Your task to perform on an android device: Open eBay Image 0: 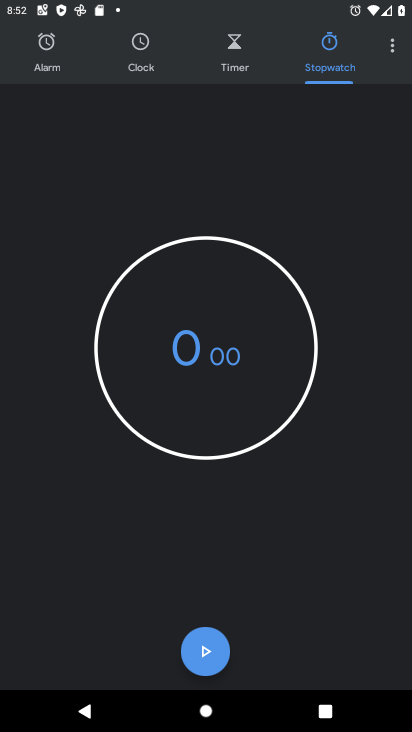
Step 0: press home button
Your task to perform on an android device: Open eBay Image 1: 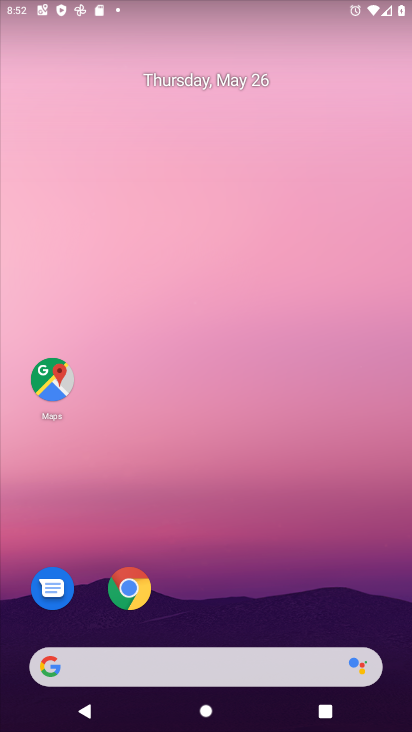
Step 1: drag from (391, 585) to (290, 17)
Your task to perform on an android device: Open eBay Image 2: 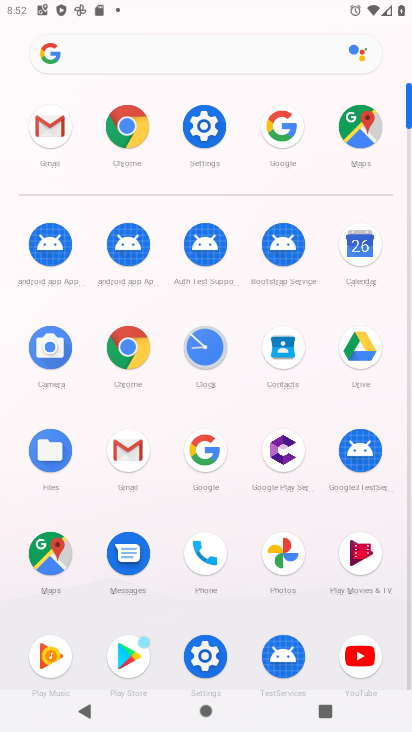
Step 2: click (126, 462)
Your task to perform on an android device: Open eBay Image 3: 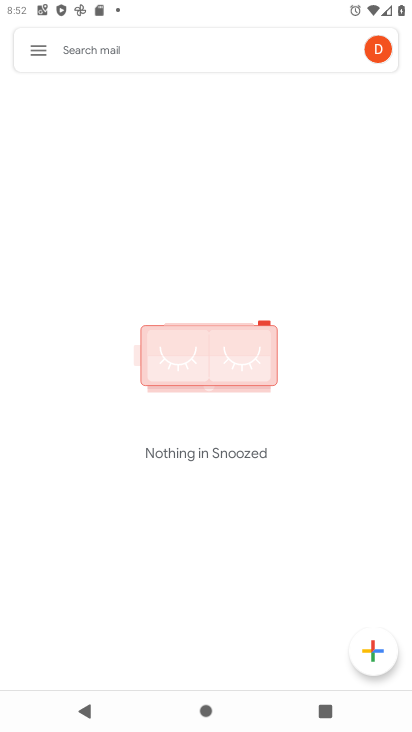
Step 3: press home button
Your task to perform on an android device: Open eBay Image 4: 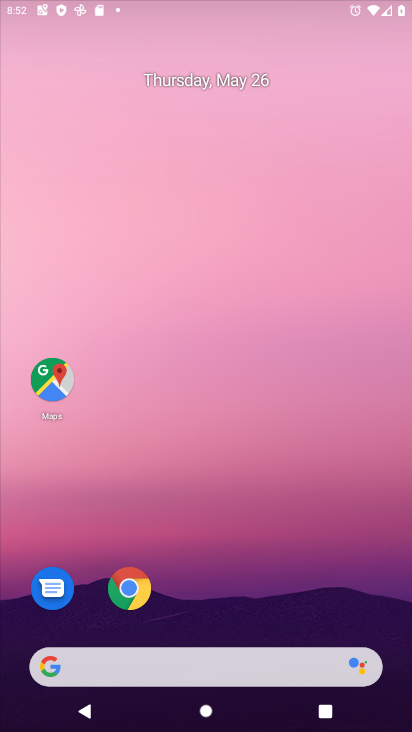
Step 4: drag from (399, 624) to (264, 13)
Your task to perform on an android device: Open eBay Image 5: 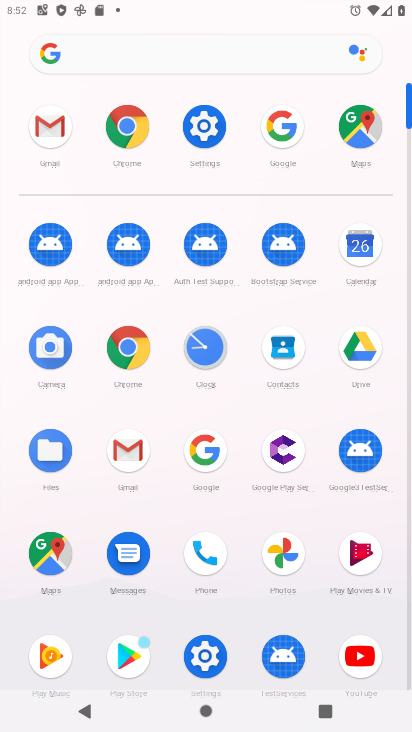
Step 5: click (198, 437)
Your task to perform on an android device: Open eBay Image 6: 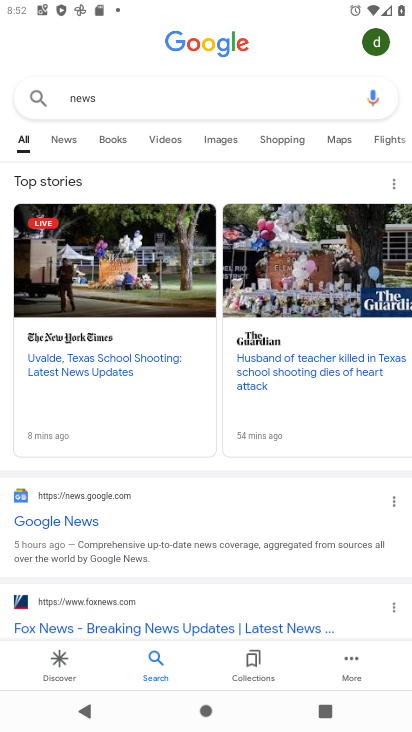
Step 6: press back button
Your task to perform on an android device: Open eBay Image 7: 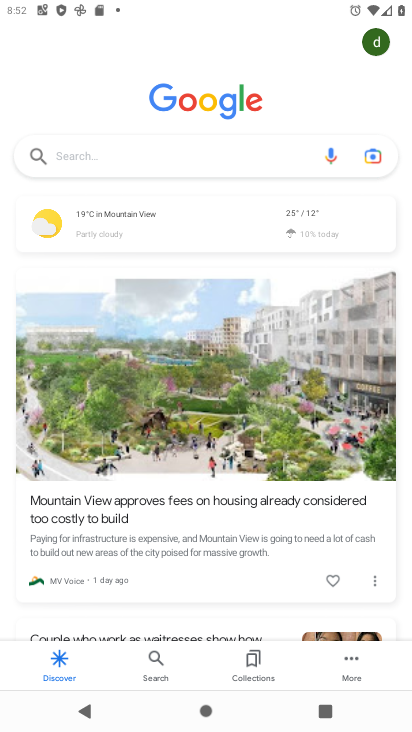
Step 7: click (137, 156)
Your task to perform on an android device: Open eBay Image 8: 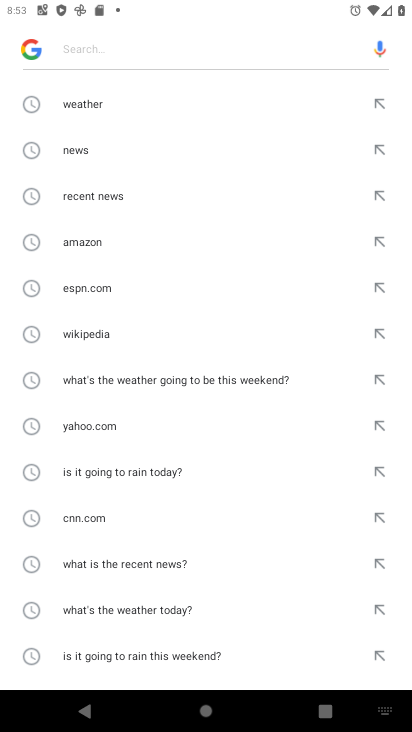
Step 8: drag from (168, 615) to (199, 155)
Your task to perform on an android device: Open eBay Image 9: 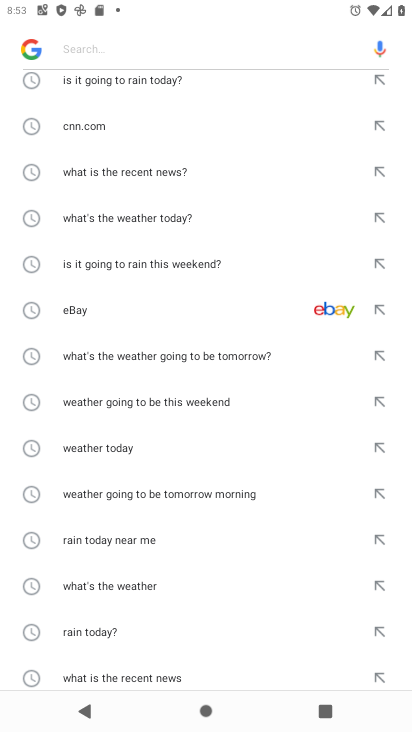
Step 9: click (127, 315)
Your task to perform on an android device: Open eBay Image 10: 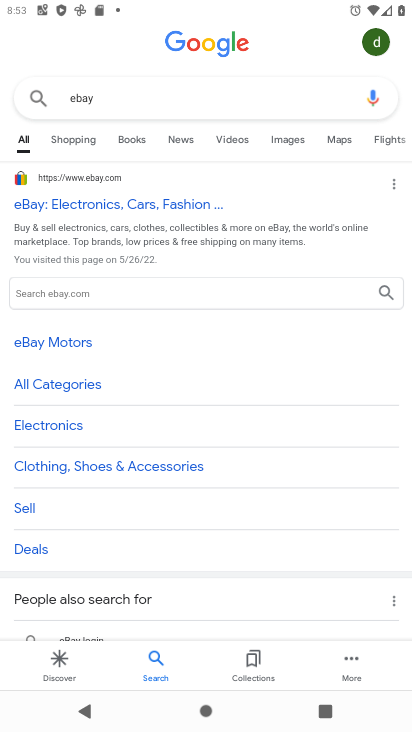
Step 10: task complete